Your task to perform on an android device: turn pop-ups off in chrome Image 0: 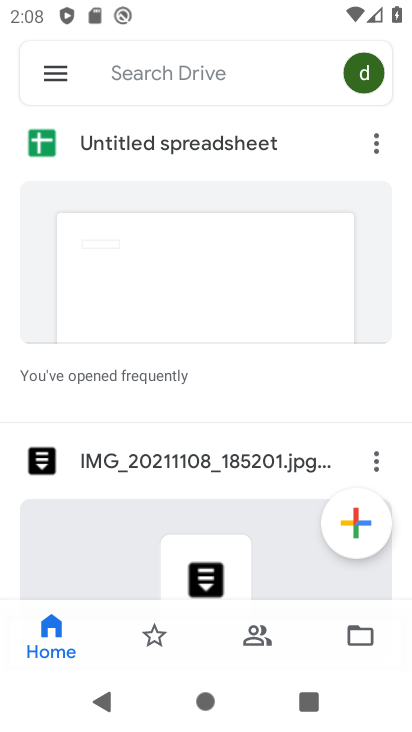
Step 0: press home button
Your task to perform on an android device: turn pop-ups off in chrome Image 1: 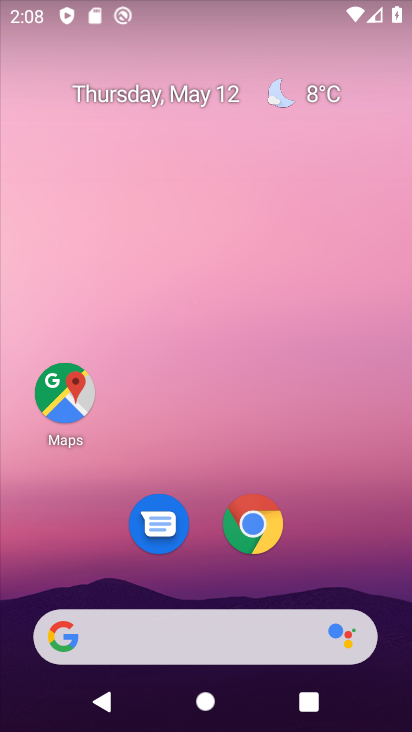
Step 1: drag from (258, 455) to (326, 60)
Your task to perform on an android device: turn pop-ups off in chrome Image 2: 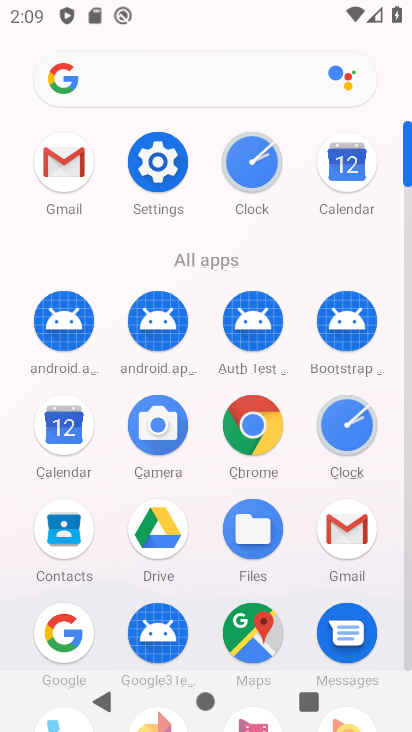
Step 2: click (251, 427)
Your task to perform on an android device: turn pop-ups off in chrome Image 3: 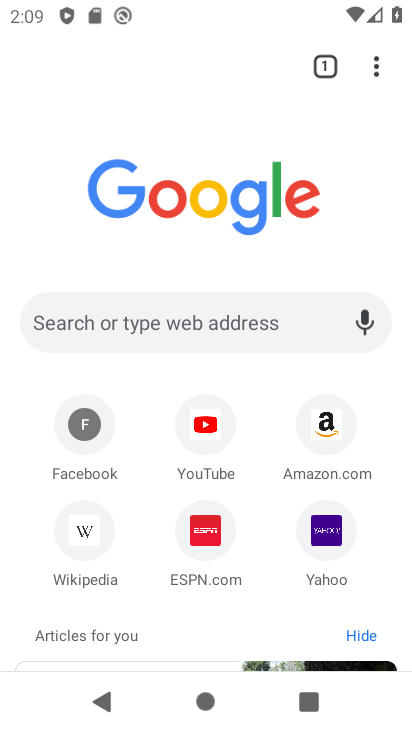
Step 3: click (374, 63)
Your task to perform on an android device: turn pop-ups off in chrome Image 4: 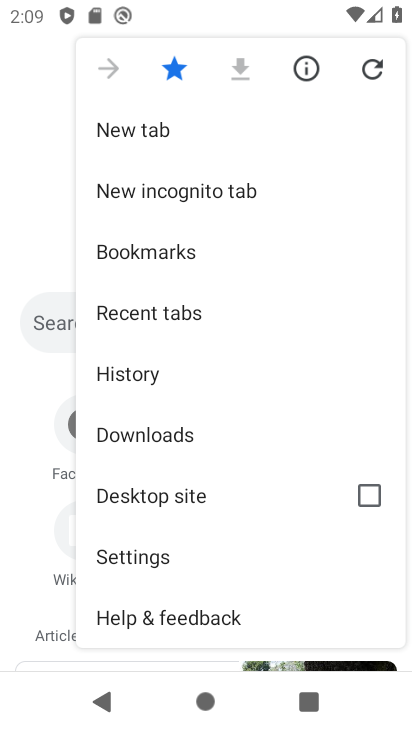
Step 4: click (164, 558)
Your task to perform on an android device: turn pop-ups off in chrome Image 5: 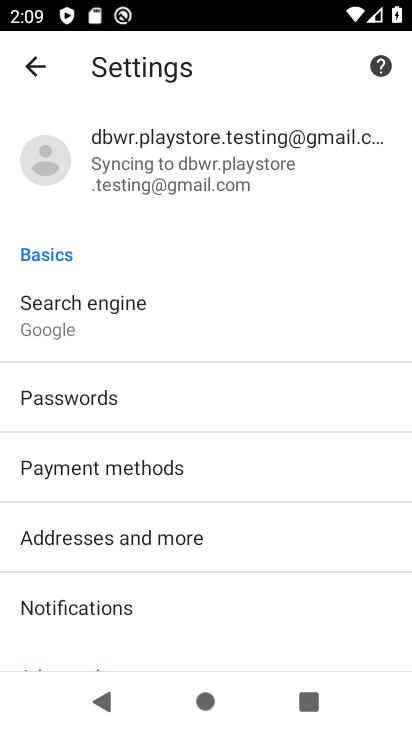
Step 5: drag from (250, 518) to (286, 145)
Your task to perform on an android device: turn pop-ups off in chrome Image 6: 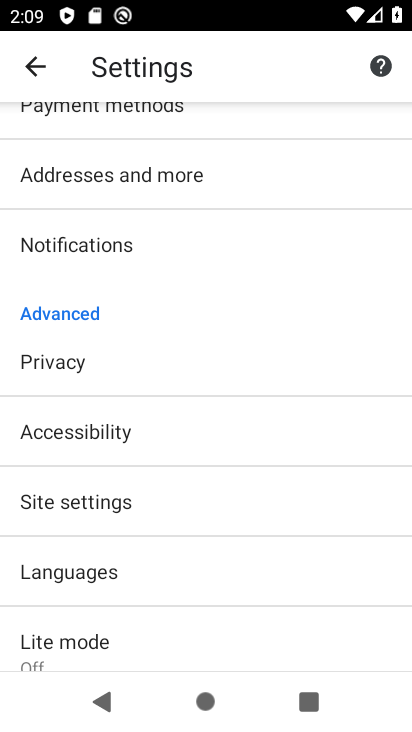
Step 6: click (218, 504)
Your task to perform on an android device: turn pop-ups off in chrome Image 7: 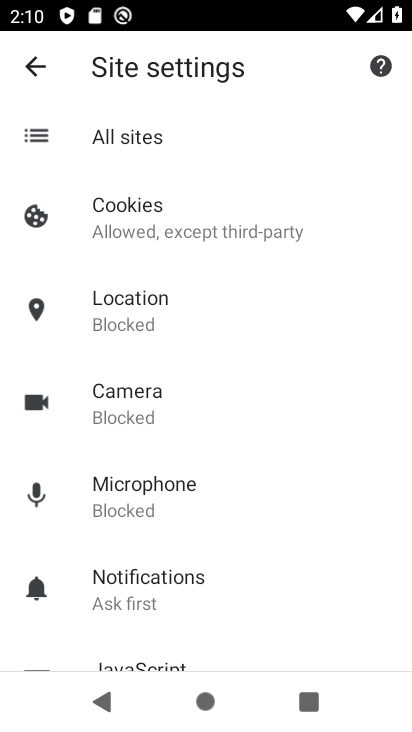
Step 7: drag from (267, 542) to (255, 277)
Your task to perform on an android device: turn pop-ups off in chrome Image 8: 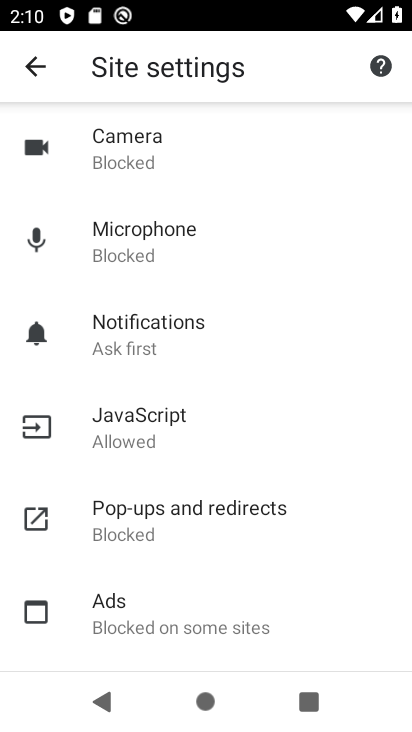
Step 8: click (191, 501)
Your task to perform on an android device: turn pop-ups off in chrome Image 9: 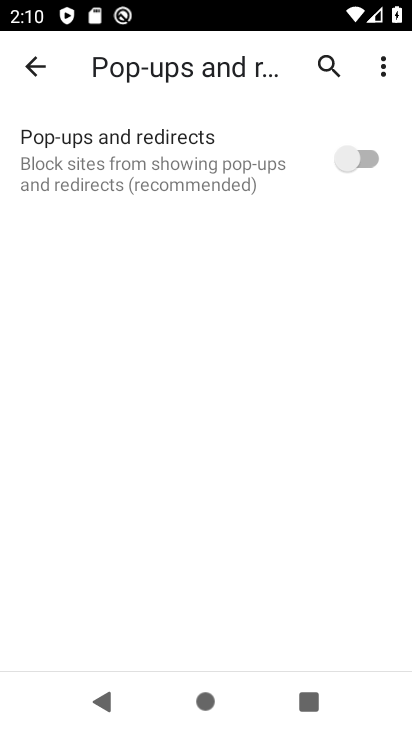
Step 9: task complete